Your task to perform on an android device: turn off javascript in the chrome app Image 0: 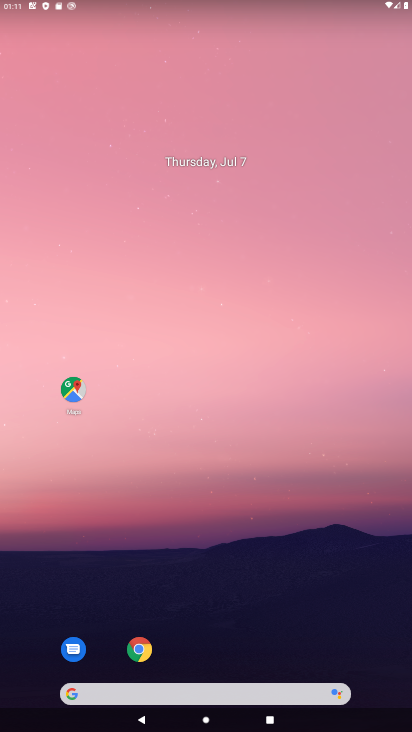
Step 0: click (246, 62)
Your task to perform on an android device: turn off javascript in the chrome app Image 1: 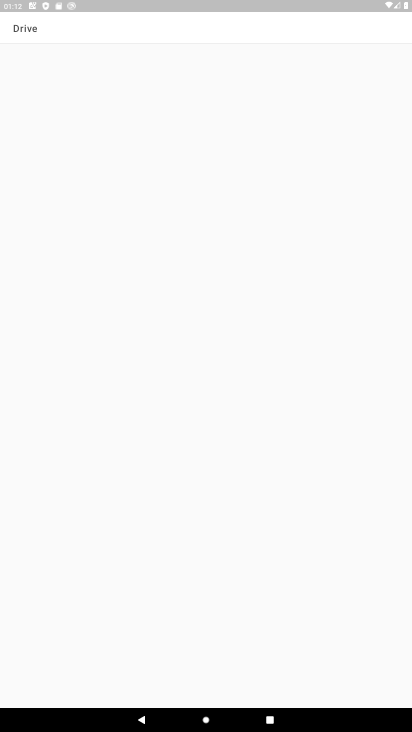
Step 1: press home button
Your task to perform on an android device: turn off javascript in the chrome app Image 2: 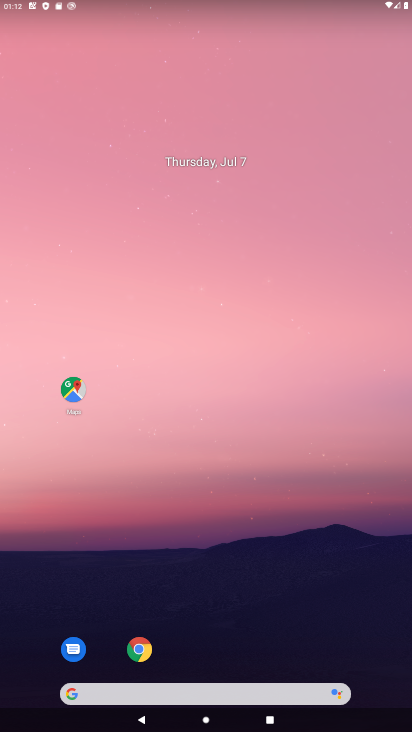
Step 2: click (144, 658)
Your task to perform on an android device: turn off javascript in the chrome app Image 3: 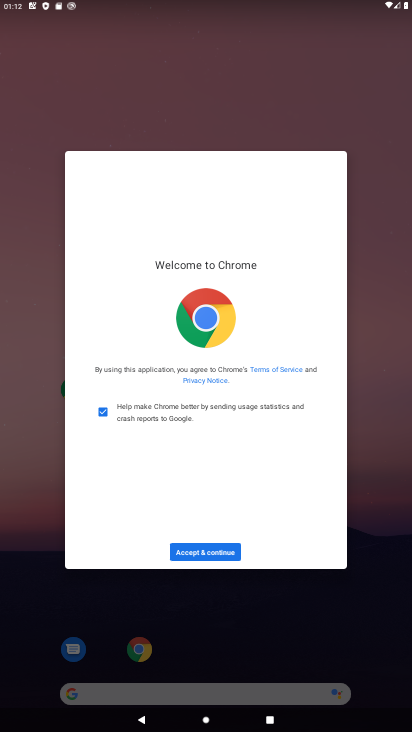
Step 3: click (185, 551)
Your task to perform on an android device: turn off javascript in the chrome app Image 4: 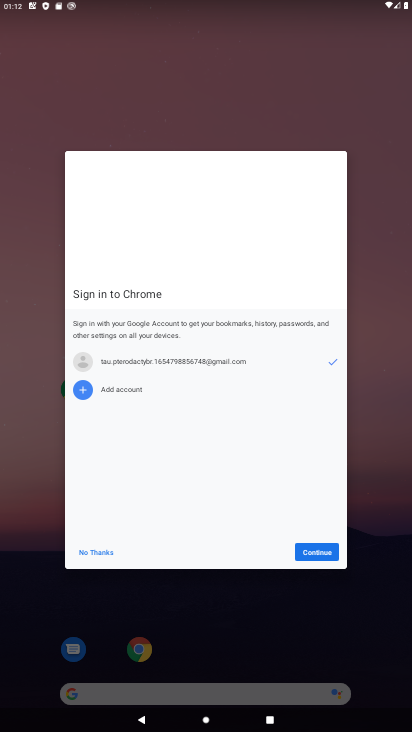
Step 4: click (321, 547)
Your task to perform on an android device: turn off javascript in the chrome app Image 5: 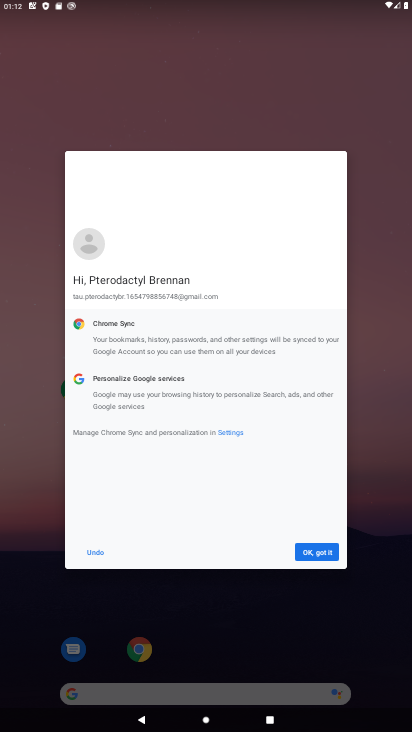
Step 5: click (324, 549)
Your task to perform on an android device: turn off javascript in the chrome app Image 6: 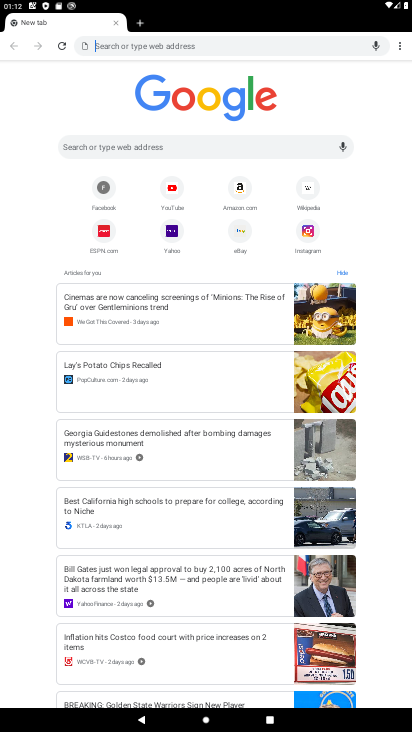
Step 6: click (400, 42)
Your task to perform on an android device: turn off javascript in the chrome app Image 7: 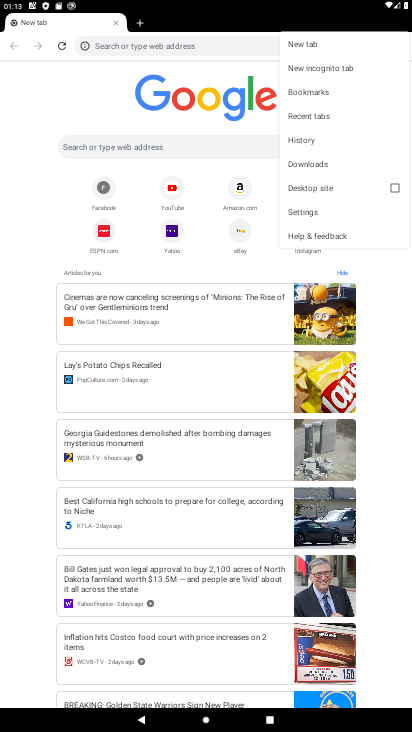
Step 7: click (320, 209)
Your task to perform on an android device: turn off javascript in the chrome app Image 8: 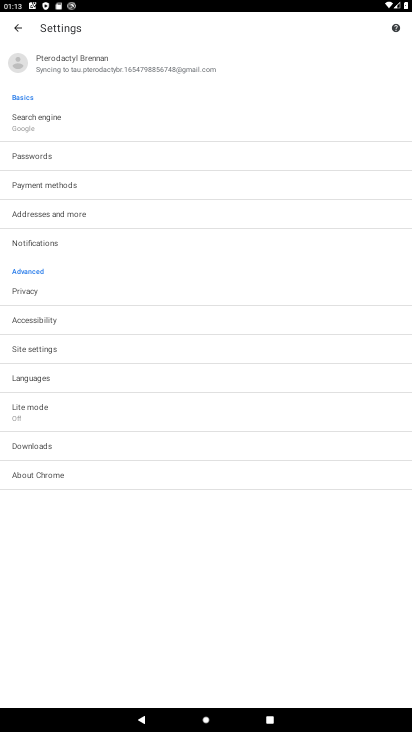
Step 8: click (78, 344)
Your task to perform on an android device: turn off javascript in the chrome app Image 9: 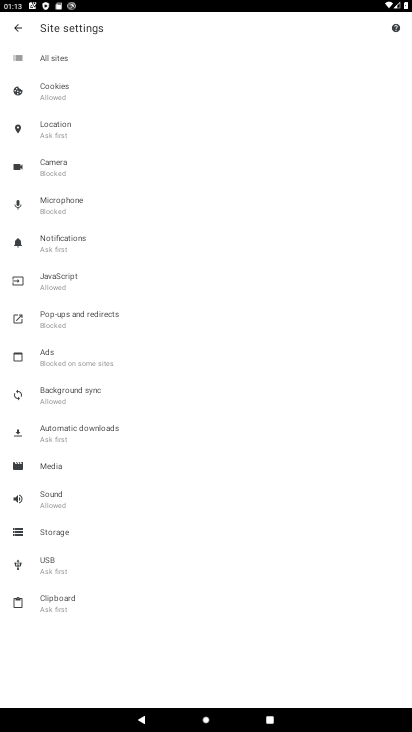
Step 9: click (84, 275)
Your task to perform on an android device: turn off javascript in the chrome app Image 10: 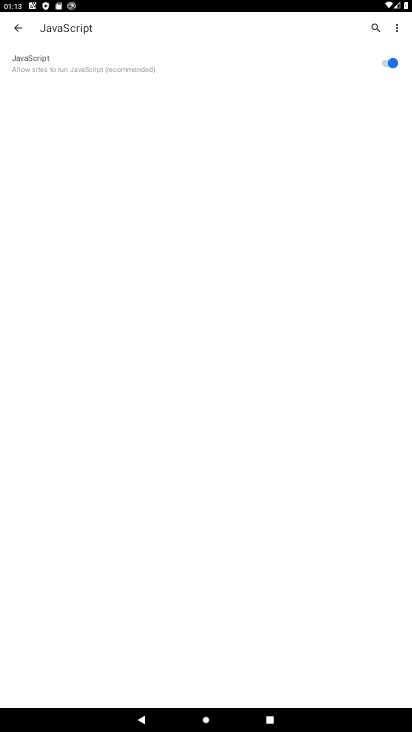
Step 10: click (392, 57)
Your task to perform on an android device: turn off javascript in the chrome app Image 11: 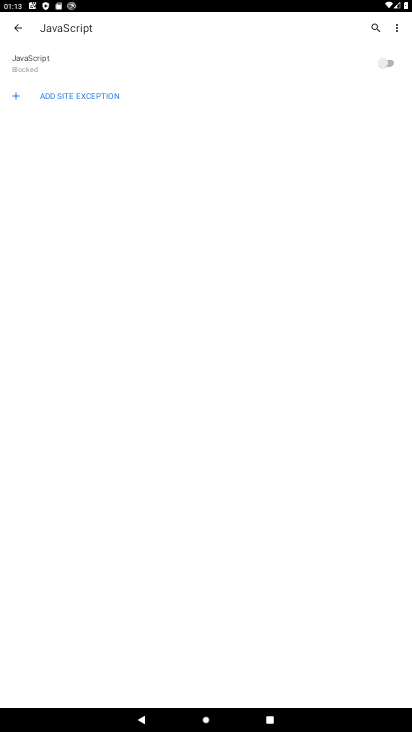
Step 11: task complete